Your task to perform on an android device: Open privacy settings Image 0: 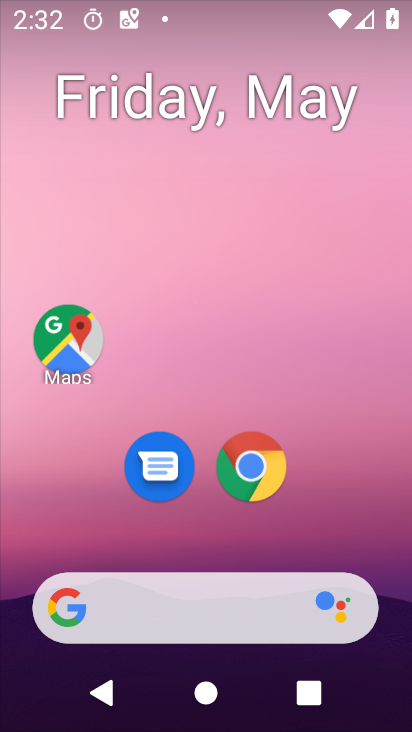
Step 0: drag from (333, 454) to (377, 86)
Your task to perform on an android device: Open privacy settings Image 1: 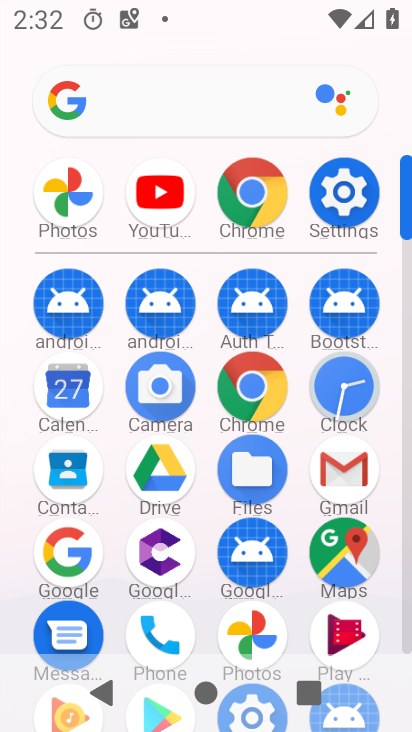
Step 1: click (338, 192)
Your task to perform on an android device: Open privacy settings Image 2: 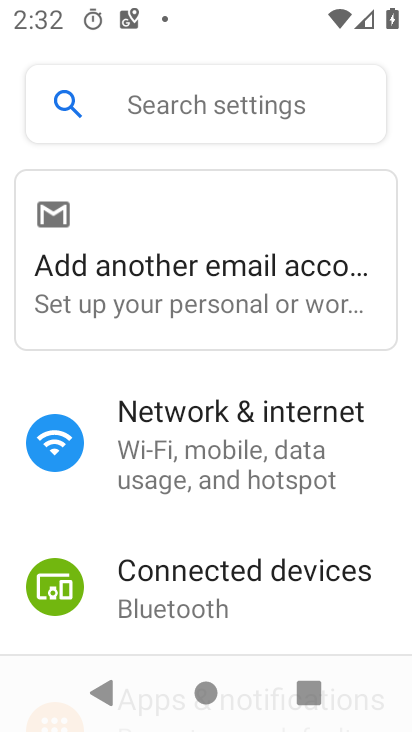
Step 2: drag from (257, 505) to (327, 133)
Your task to perform on an android device: Open privacy settings Image 3: 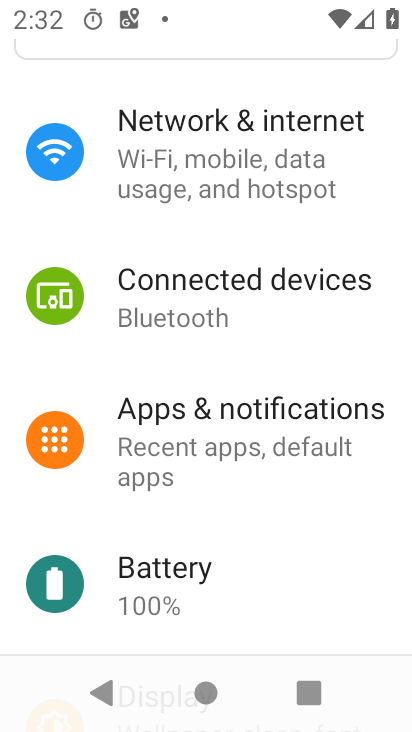
Step 3: drag from (260, 489) to (351, 50)
Your task to perform on an android device: Open privacy settings Image 4: 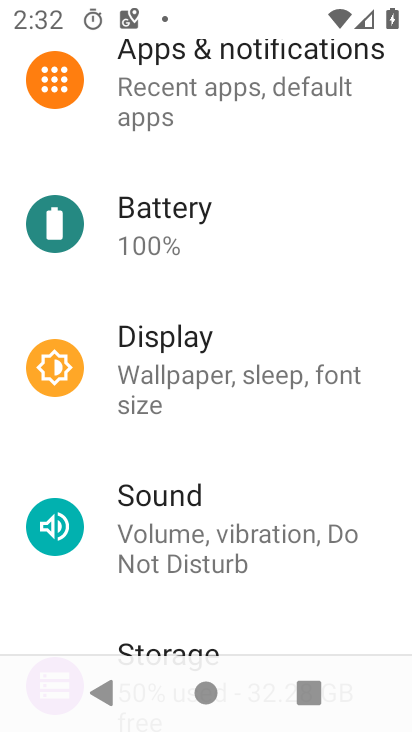
Step 4: drag from (276, 446) to (330, 155)
Your task to perform on an android device: Open privacy settings Image 5: 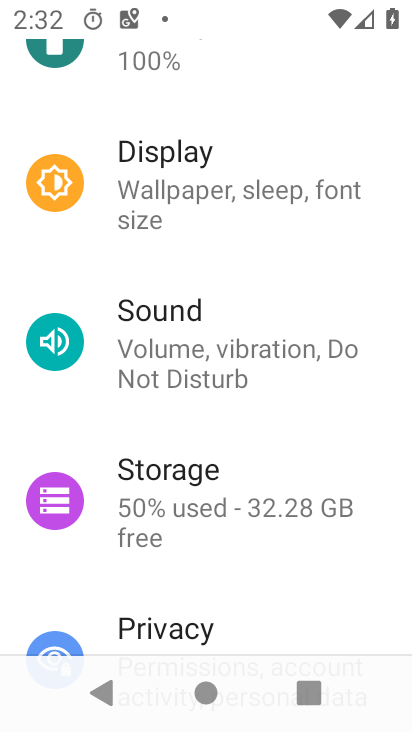
Step 5: drag from (265, 576) to (344, 112)
Your task to perform on an android device: Open privacy settings Image 6: 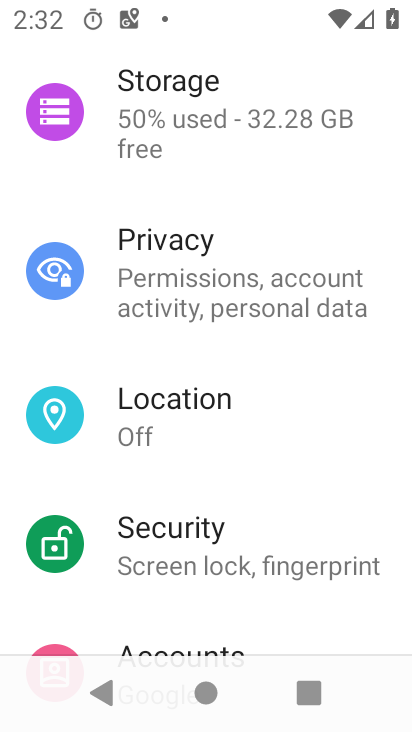
Step 6: click (219, 302)
Your task to perform on an android device: Open privacy settings Image 7: 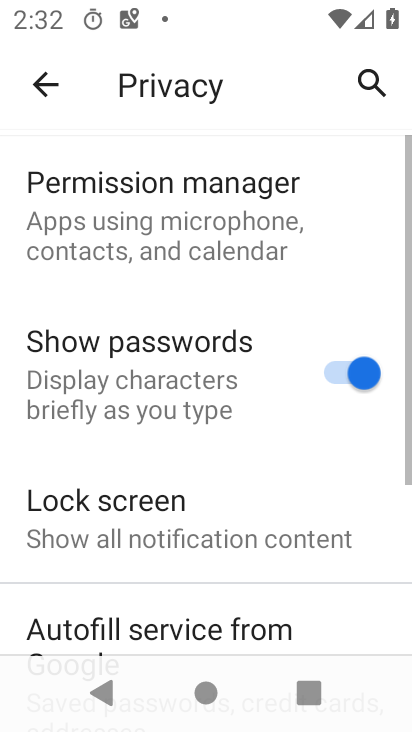
Step 7: task complete